Your task to perform on an android device: Set the phone to "Do not disturb". Image 0: 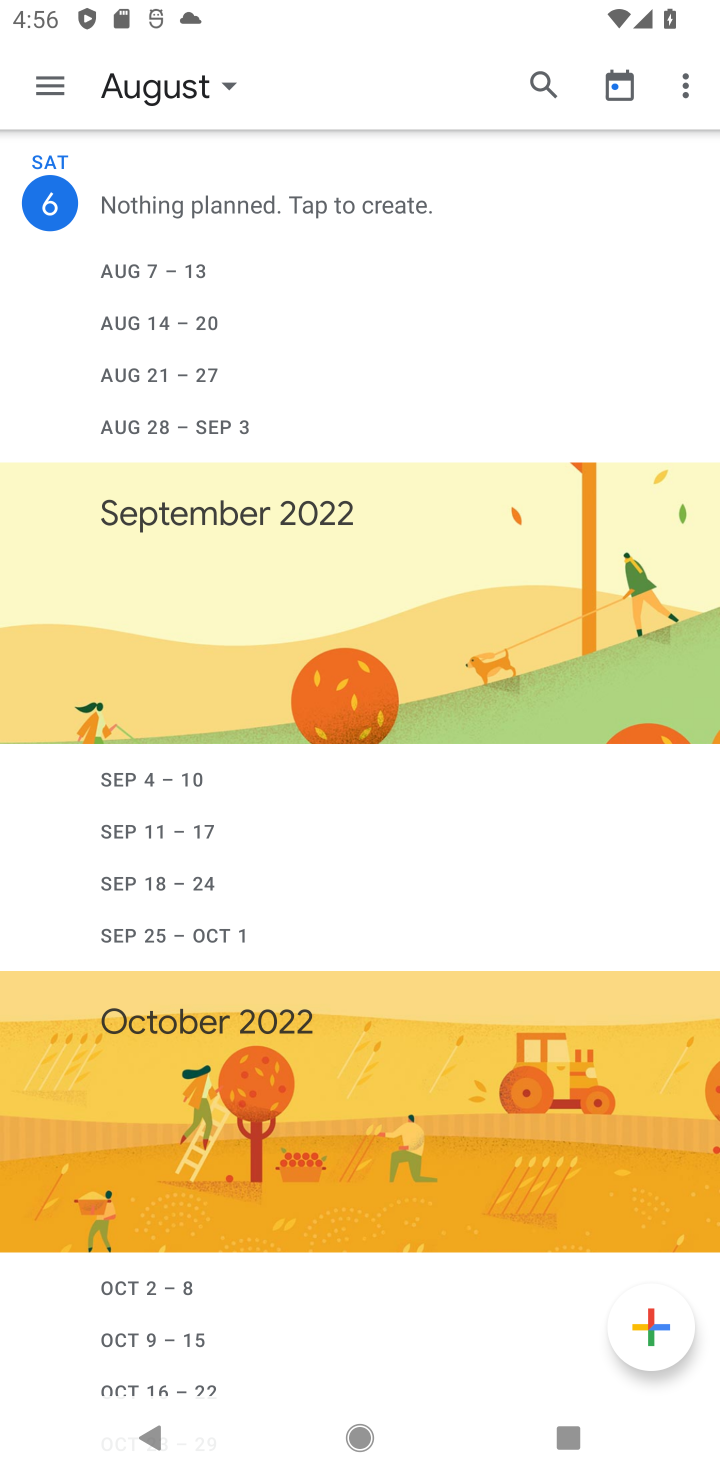
Step 0: drag from (353, 1139) to (406, 578)
Your task to perform on an android device: Set the phone to "Do not disturb". Image 1: 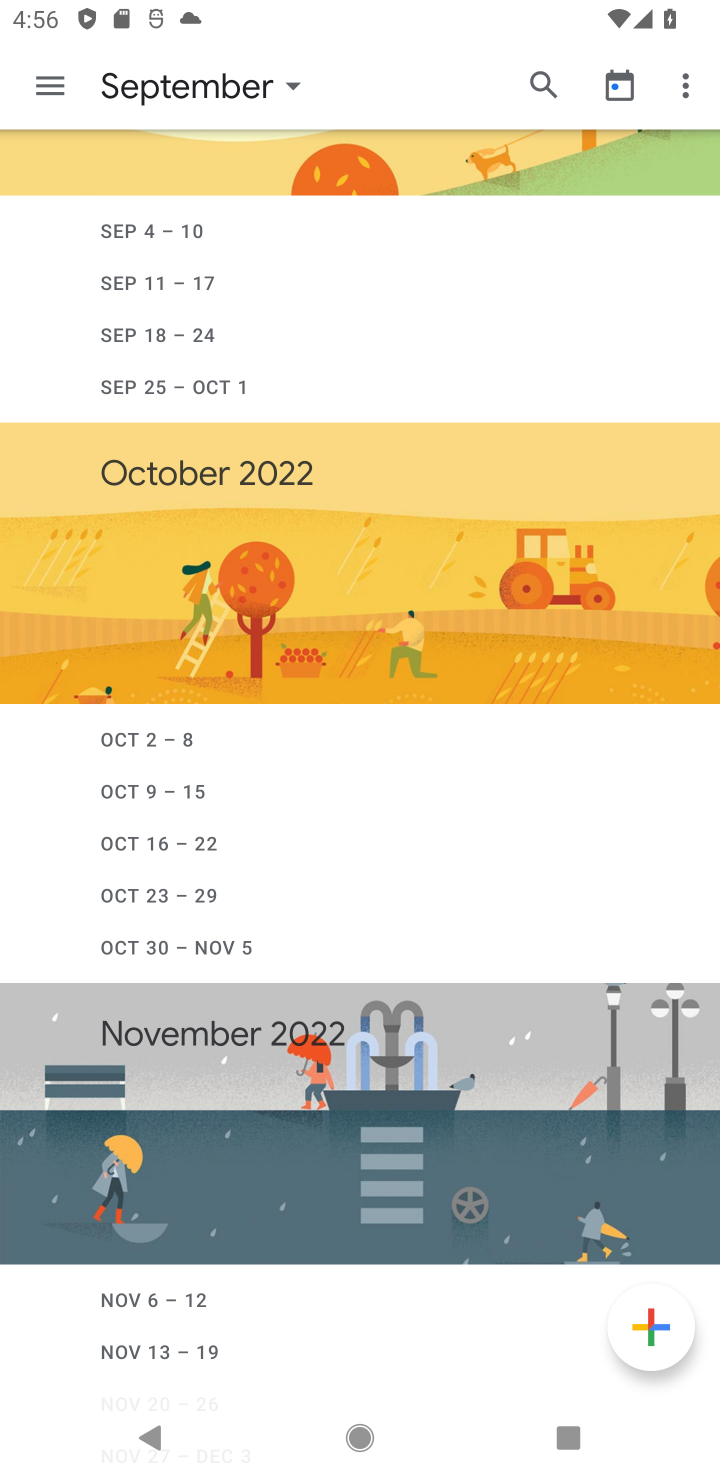
Step 1: press home button
Your task to perform on an android device: Set the phone to "Do not disturb". Image 2: 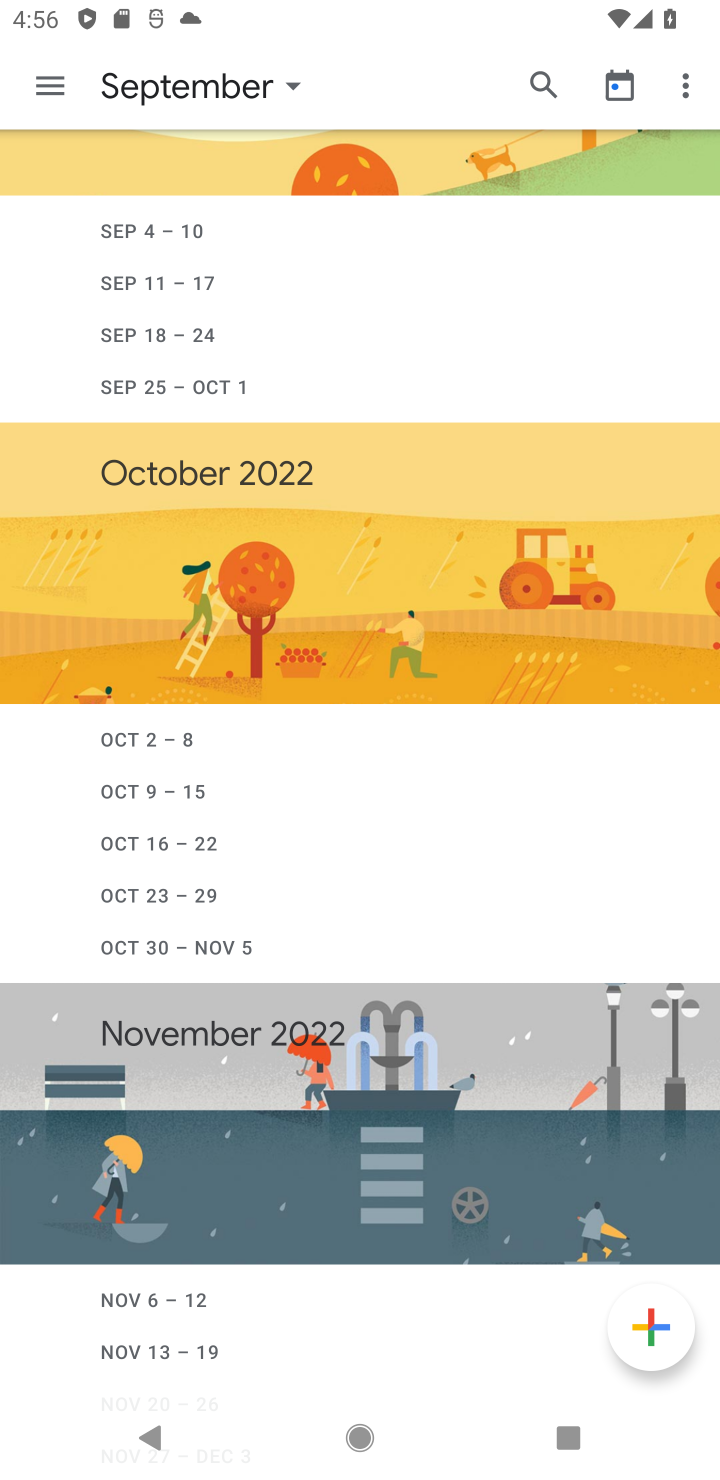
Step 2: drag from (352, 1177) to (463, 303)
Your task to perform on an android device: Set the phone to "Do not disturb". Image 3: 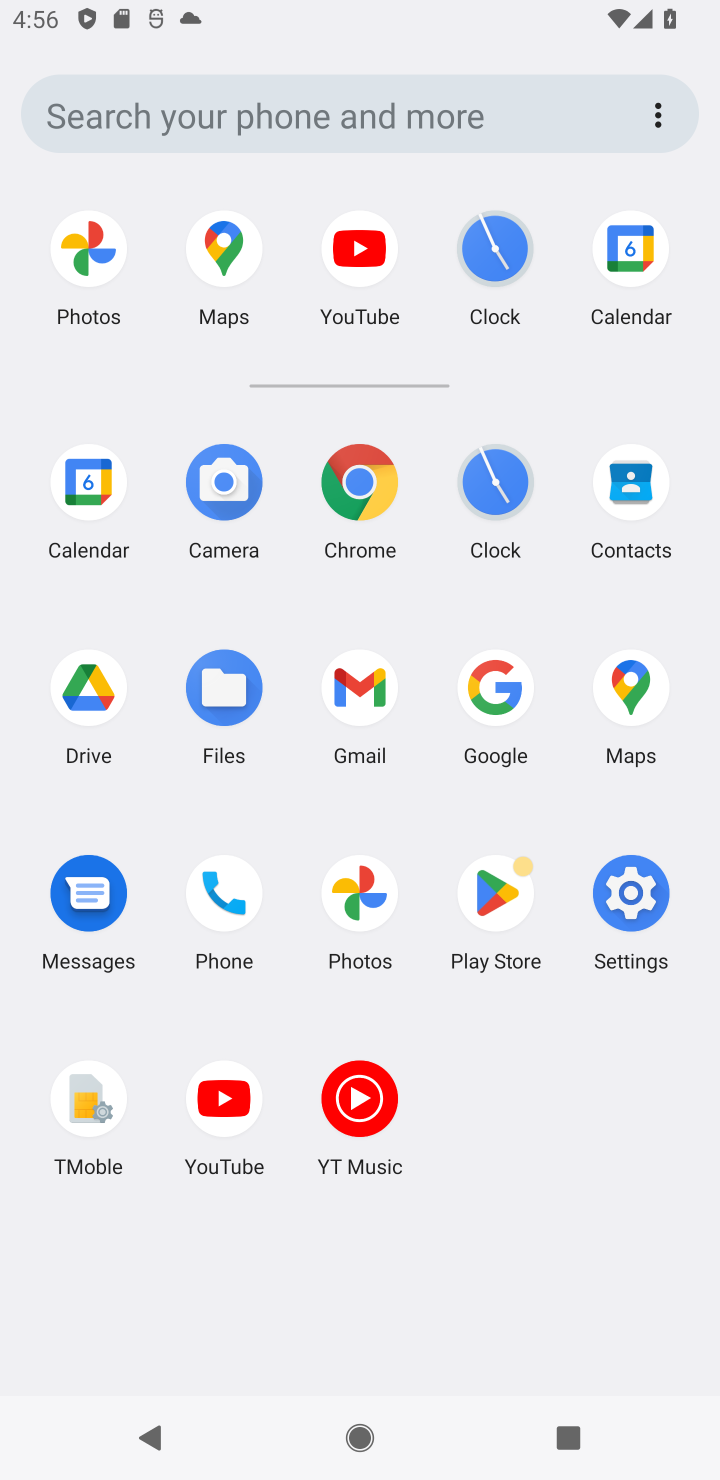
Step 3: drag from (334, 1221) to (404, 528)
Your task to perform on an android device: Set the phone to "Do not disturb". Image 4: 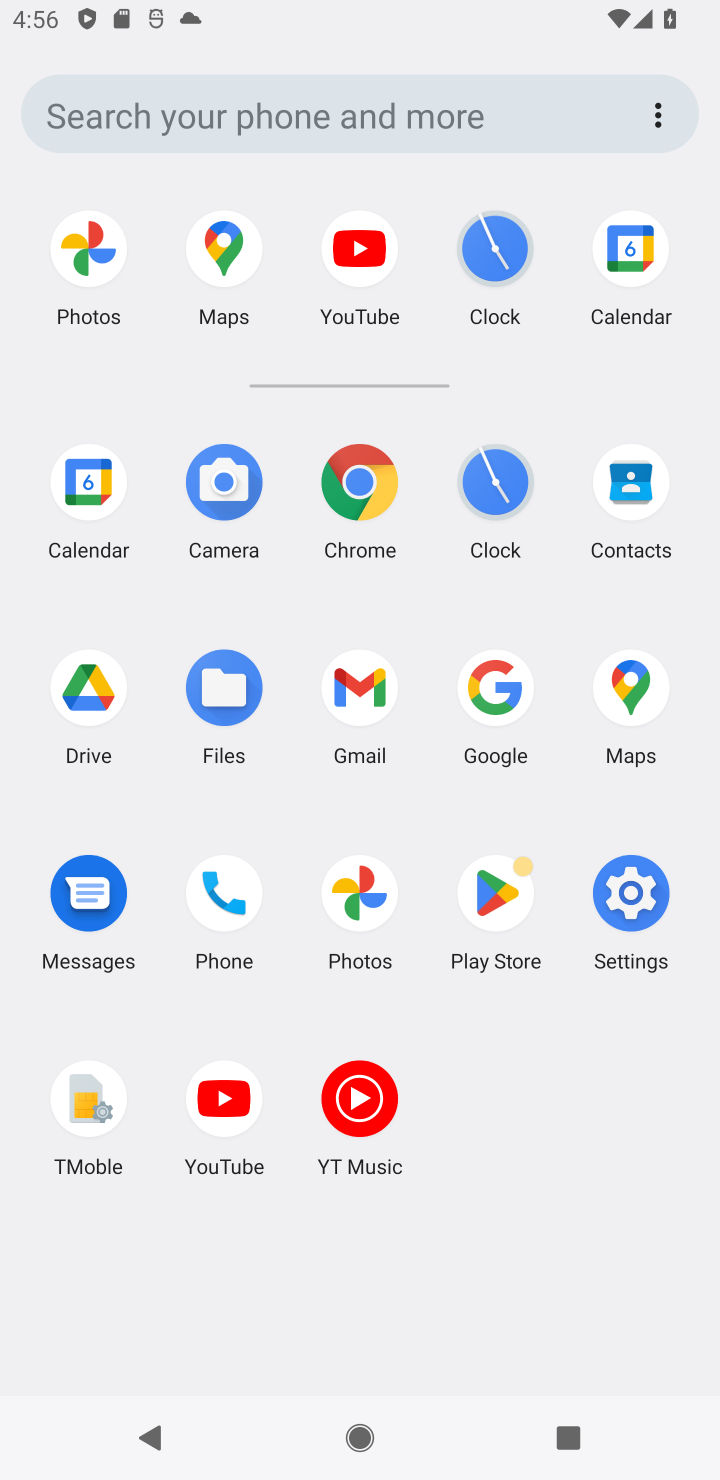
Step 4: click (641, 867)
Your task to perform on an android device: Set the phone to "Do not disturb". Image 5: 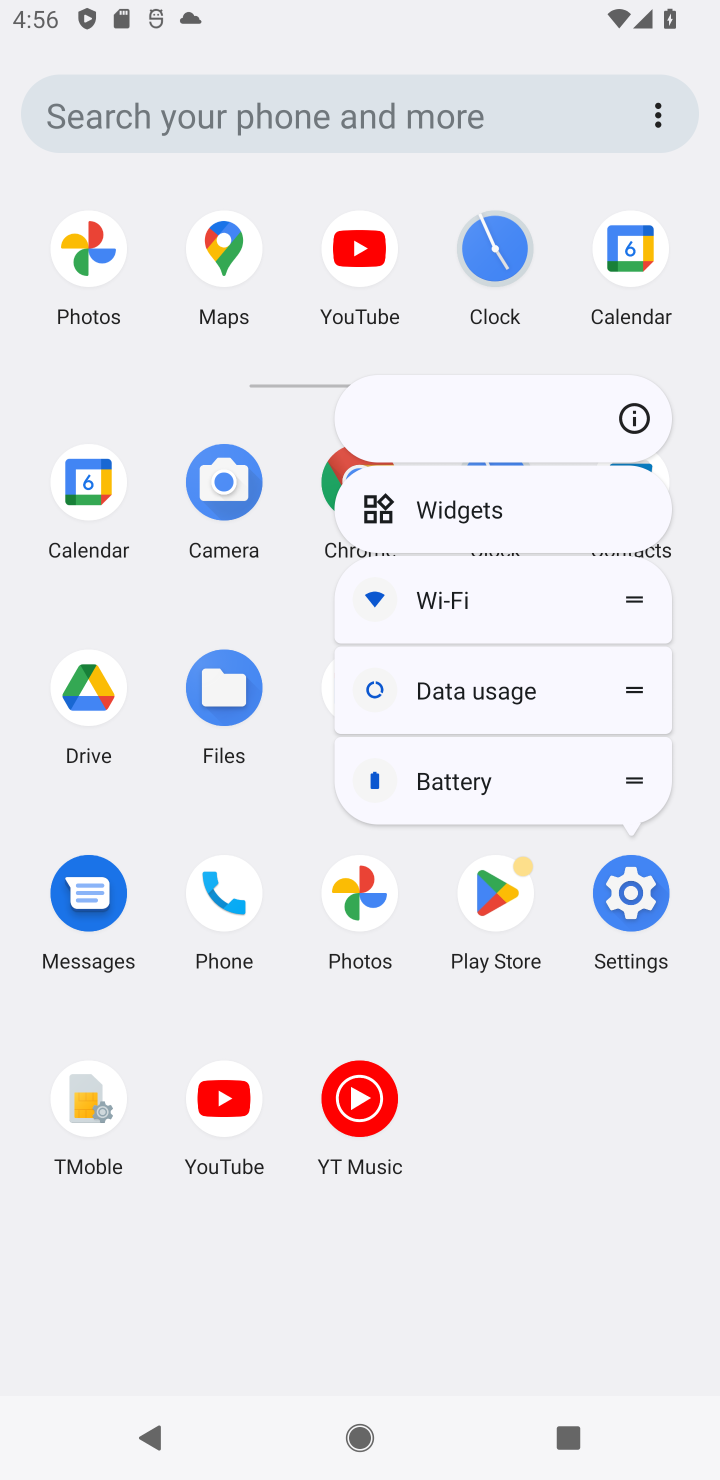
Step 5: click (628, 419)
Your task to perform on an android device: Set the phone to "Do not disturb". Image 6: 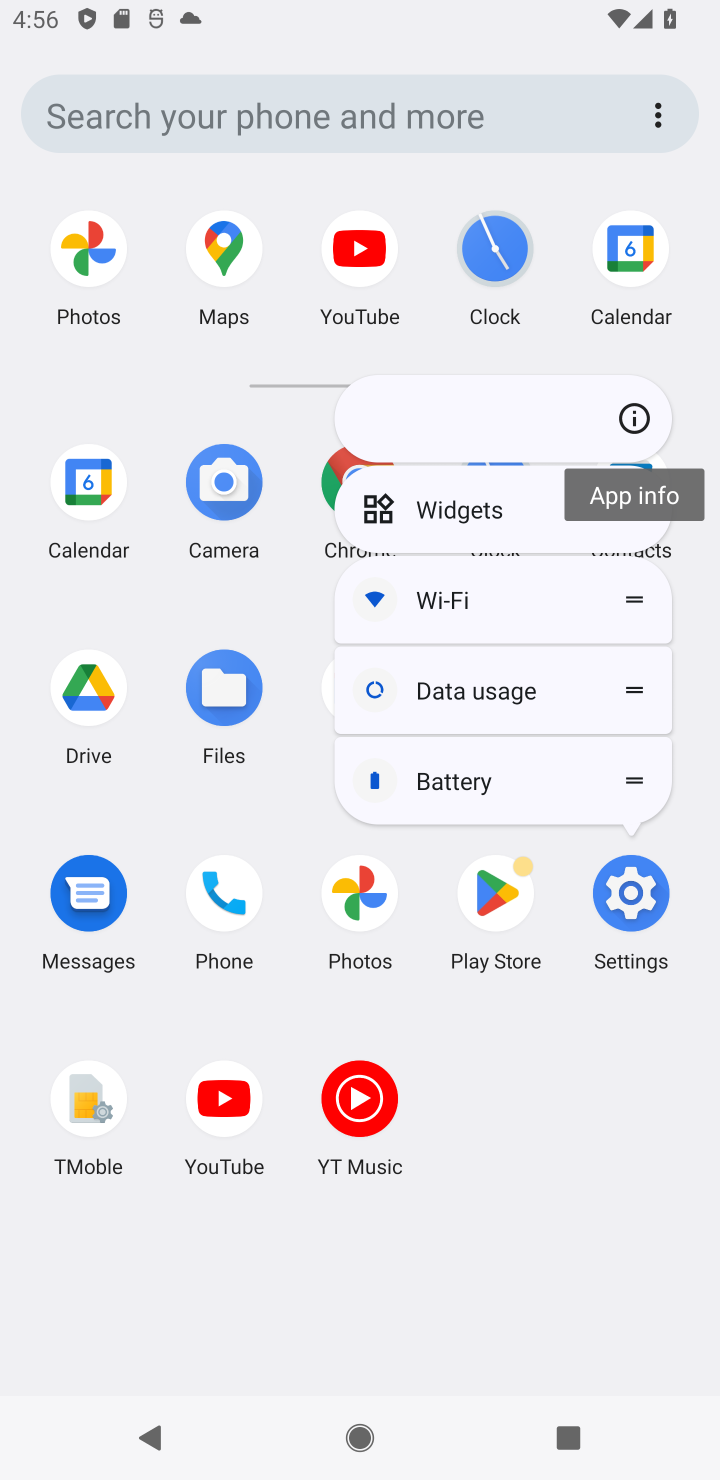
Step 6: click (628, 419)
Your task to perform on an android device: Set the phone to "Do not disturb". Image 7: 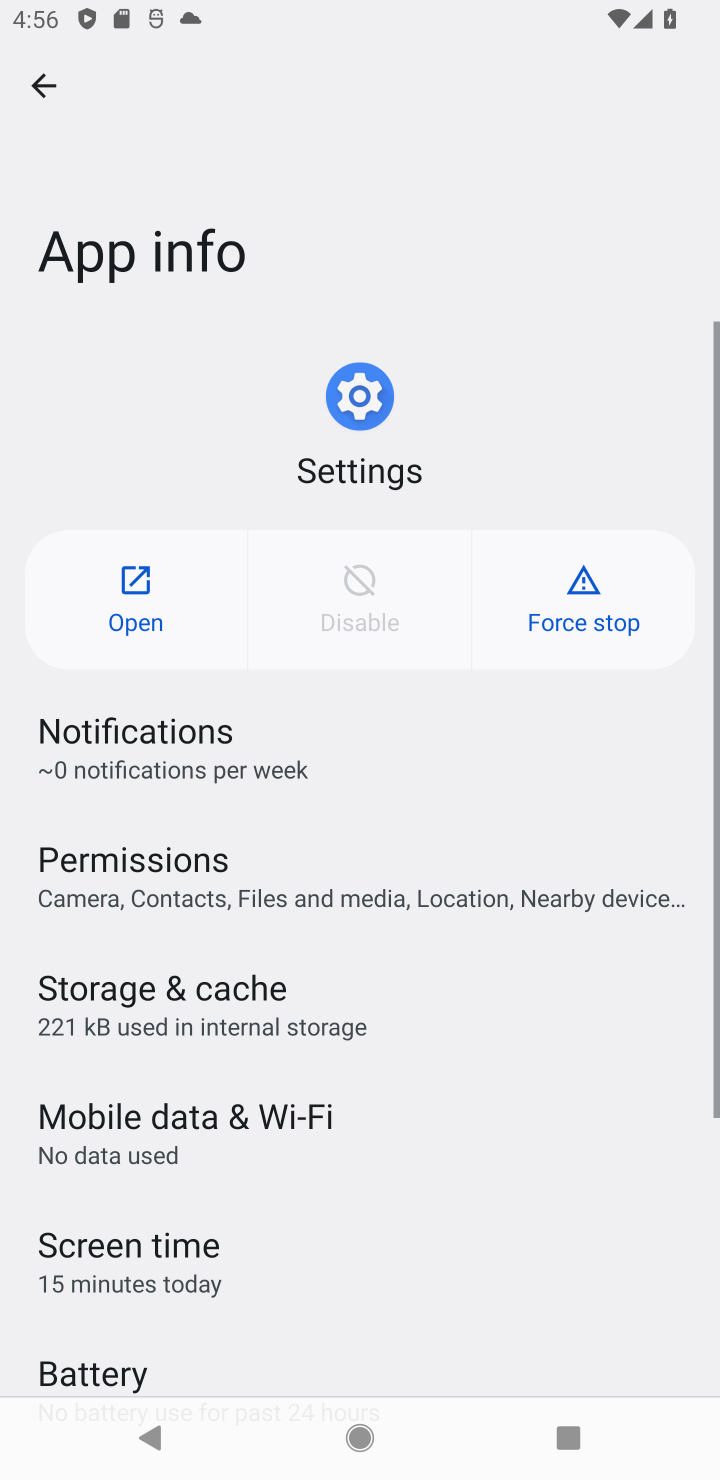
Step 7: click (149, 596)
Your task to perform on an android device: Set the phone to "Do not disturb". Image 8: 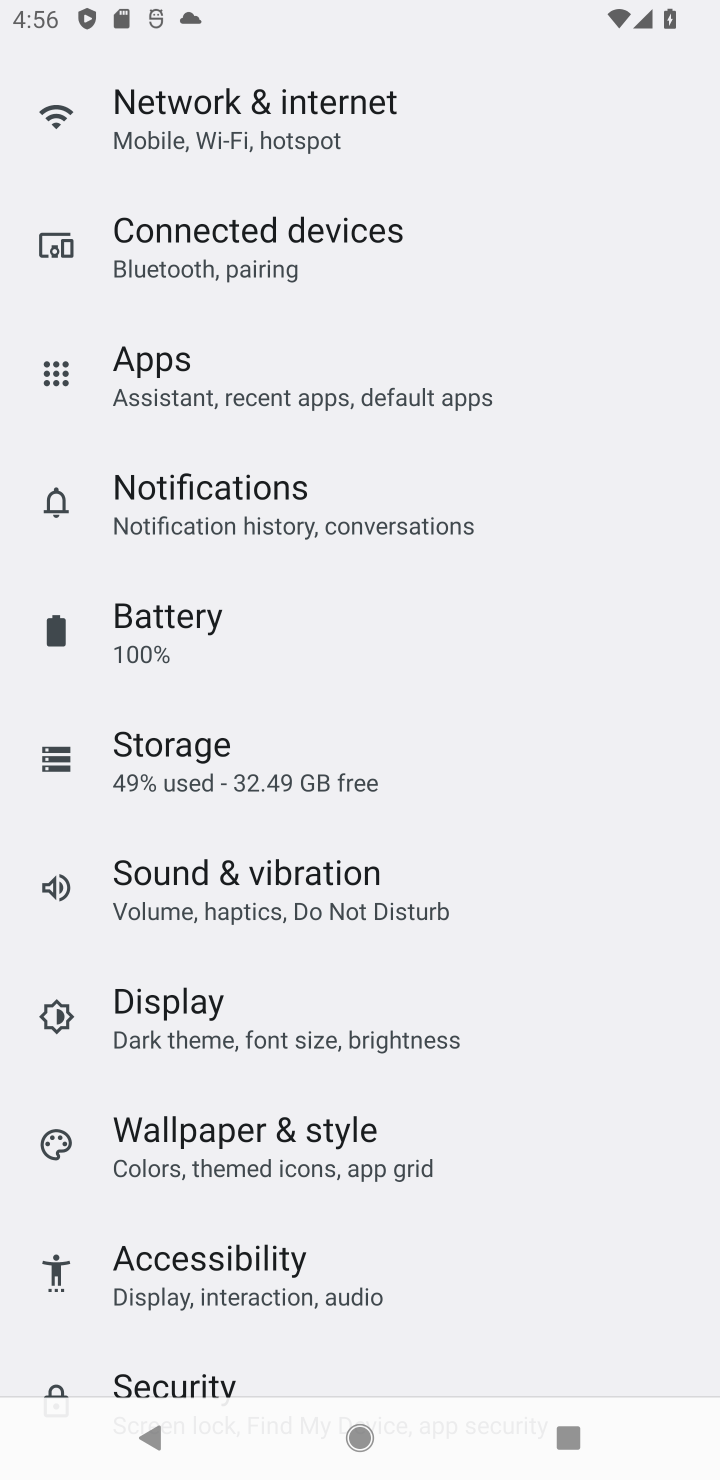
Step 8: drag from (372, 1120) to (415, 1397)
Your task to perform on an android device: Set the phone to "Do not disturb". Image 9: 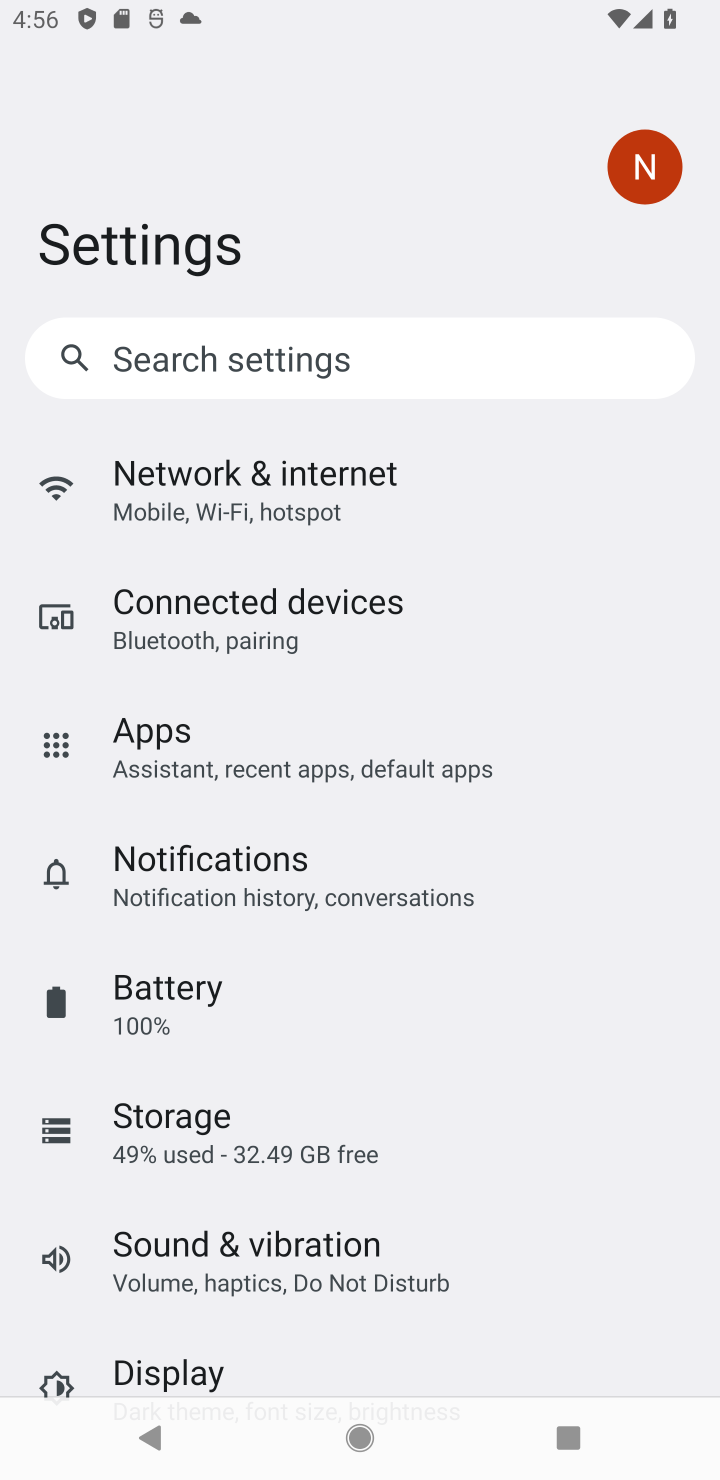
Step 9: click (253, 867)
Your task to perform on an android device: Set the phone to "Do not disturb". Image 10: 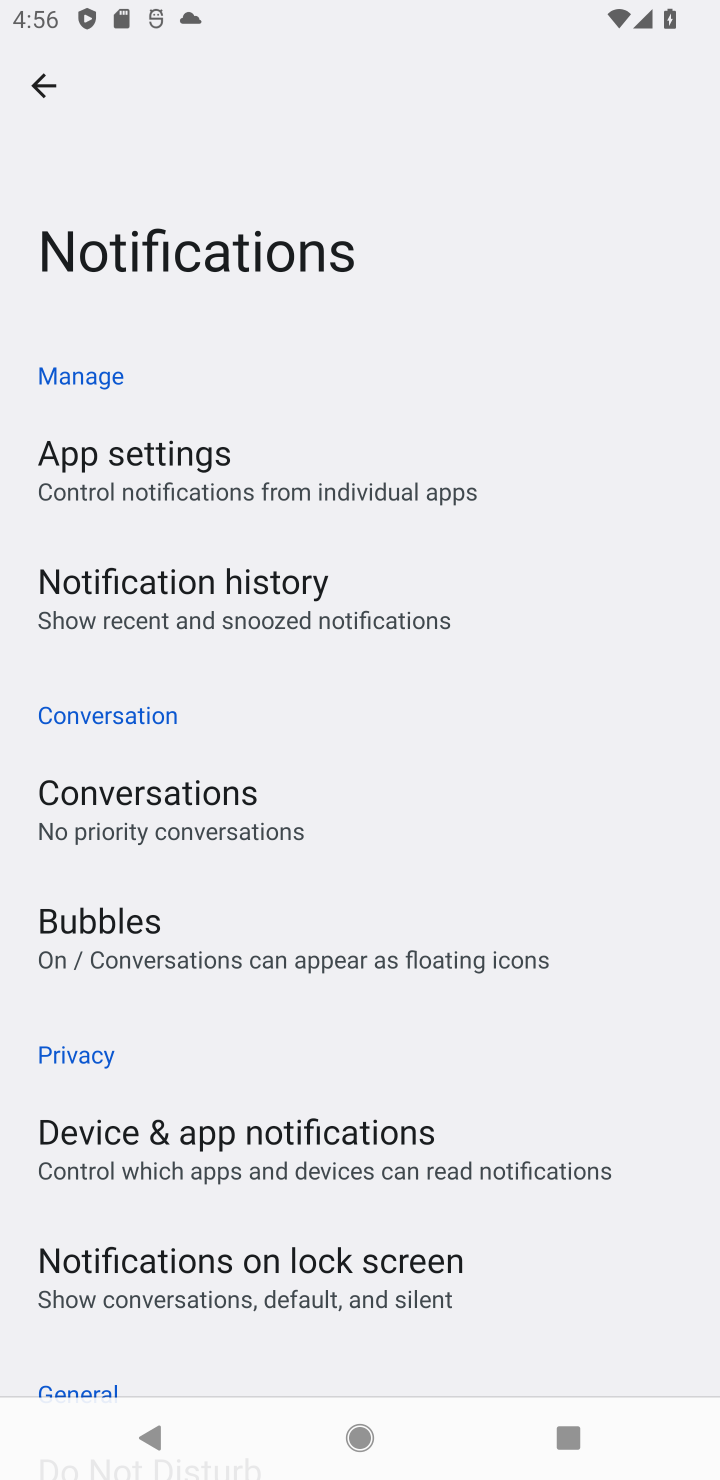
Step 10: drag from (312, 1283) to (491, 381)
Your task to perform on an android device: Set the phone to "Do not disturb". Image 11: 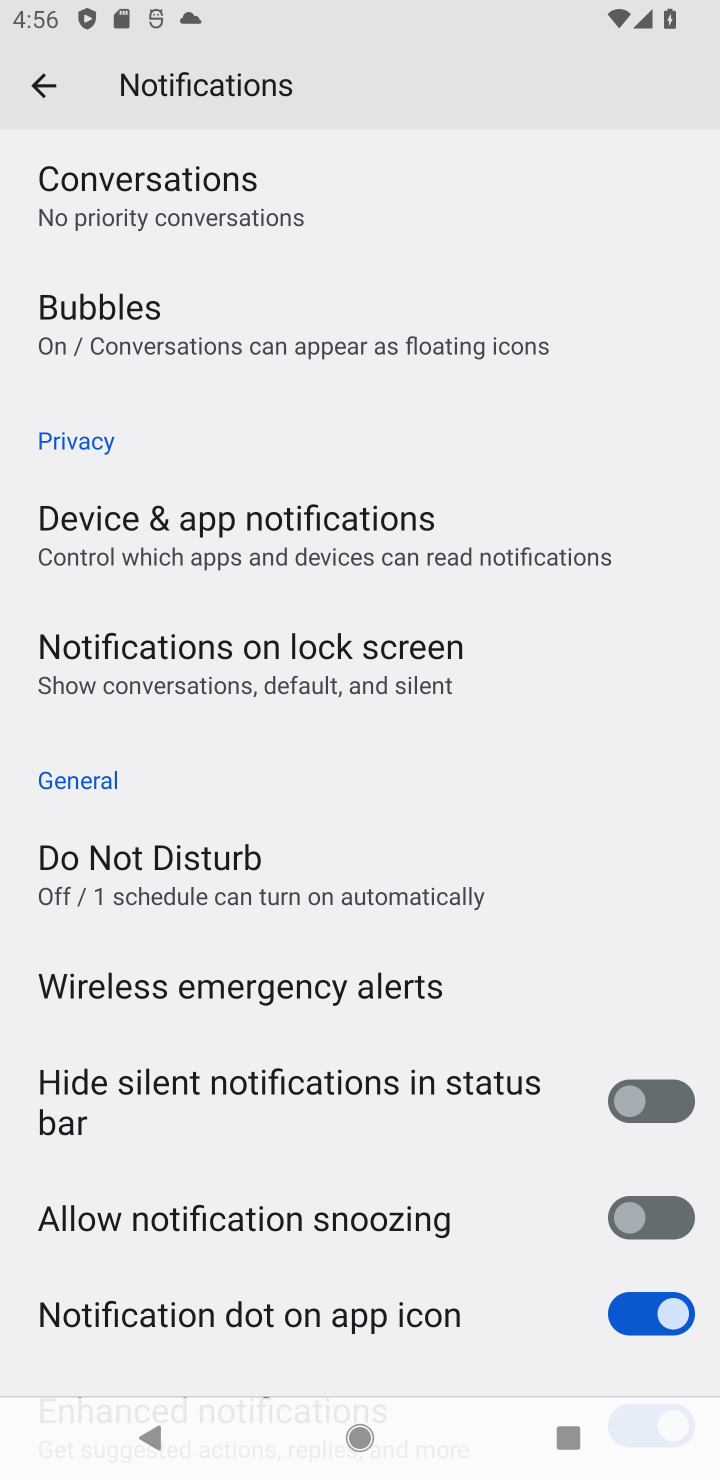
Step 11: click (212, 859)
Your task to perform on an android device: Set the phone to "Do not disturb". Image 12: 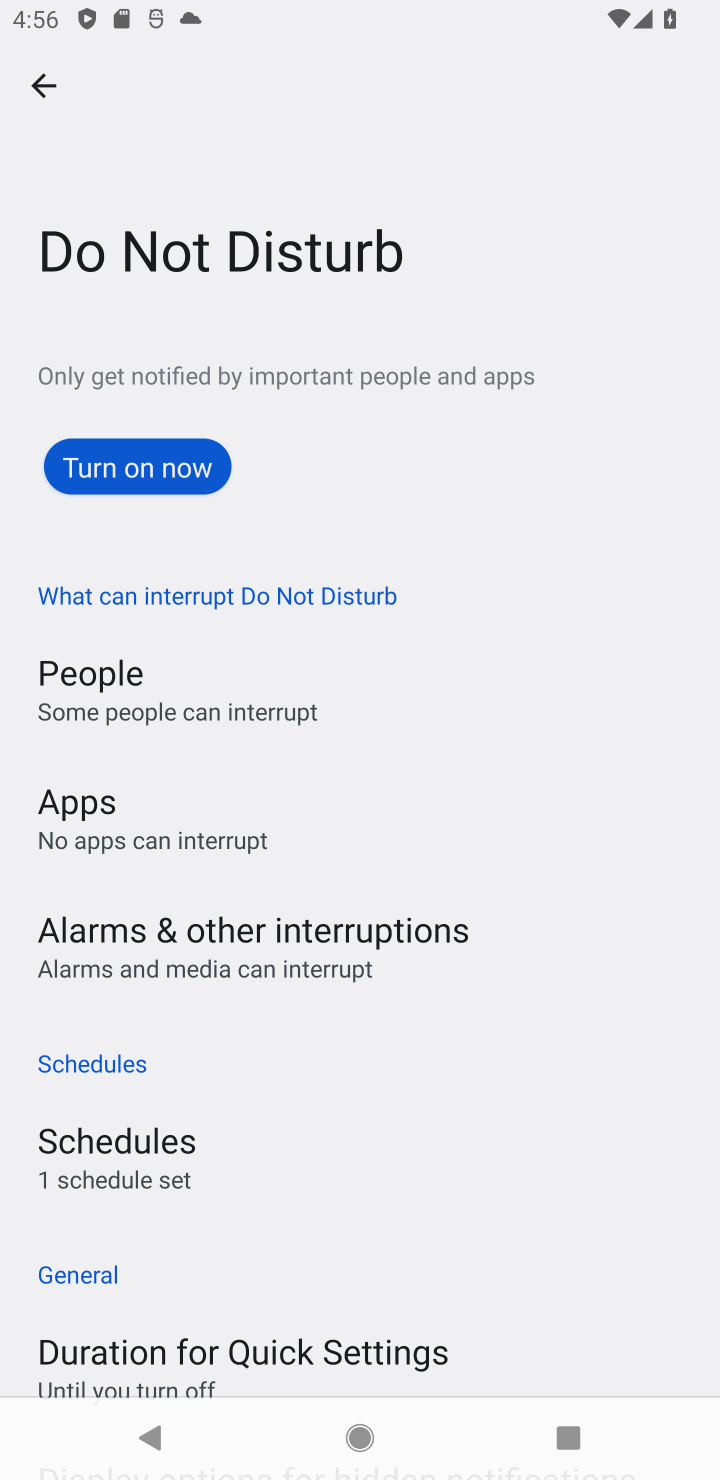
Step 12: click (105, 461)
Your task to perform on an android device: Set the phone to "Do not disturb". Image 13: 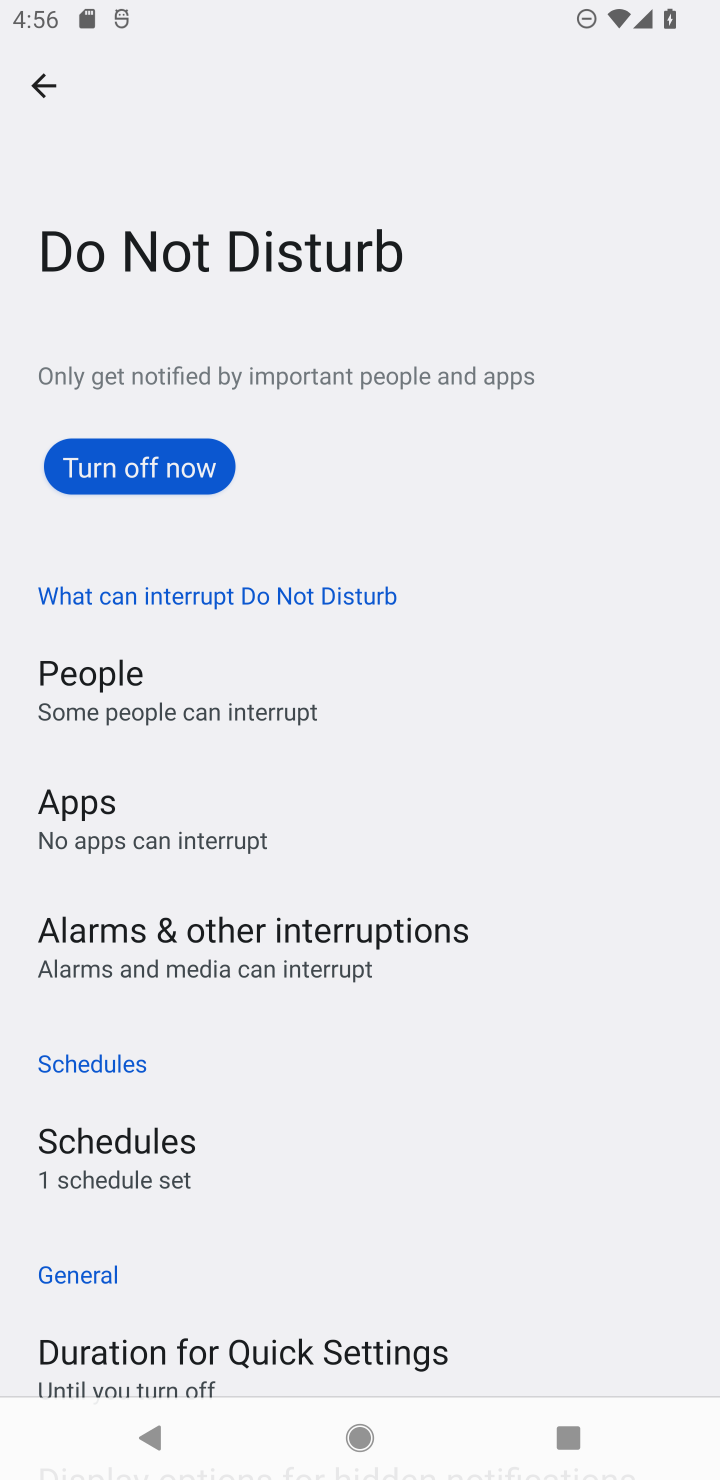
Step 13: task complete